Your task to perform on an android device: Go to notification settings Image 0: 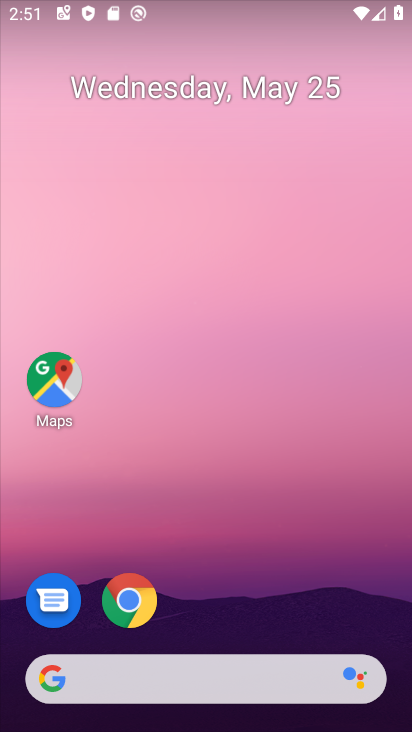
Step 0: drag from (28, 553) to (212, 145)
Your task to perform on an android device: Go to notification settings Image 1: 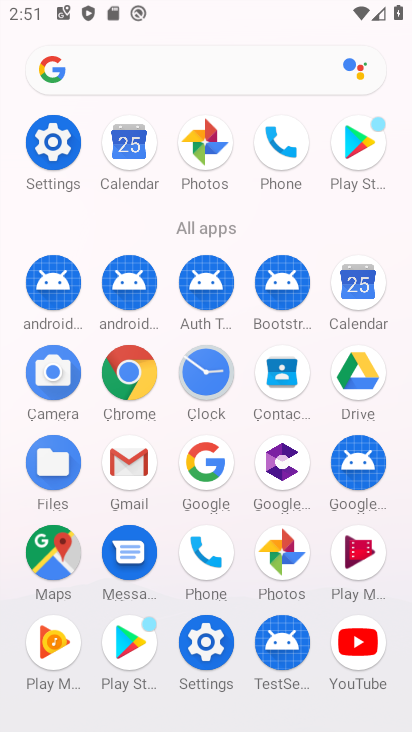
Step 1: click (62, 133)
Your task to perform on an android device: Go to notification settings Image 2: 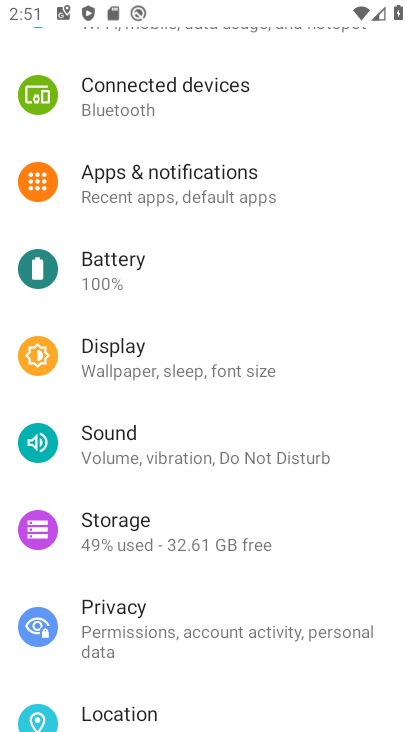
Step 2: click (164, 178)
Your task to perform on an android device: Go to notification settings Image 3: 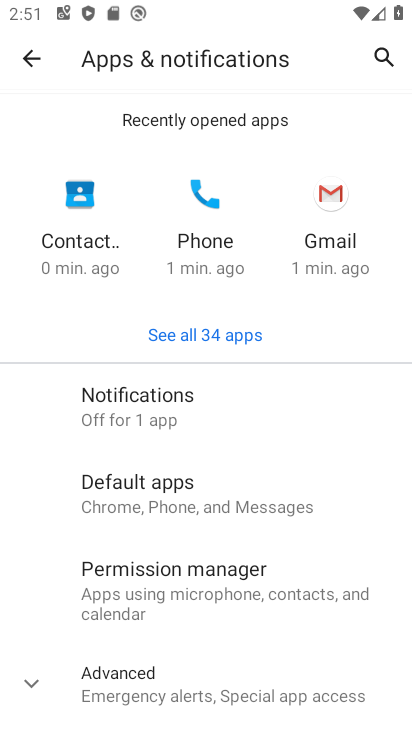
Step 3: click (187, 419)
Your task to perform on an android device: Go to notification settings Image 4: 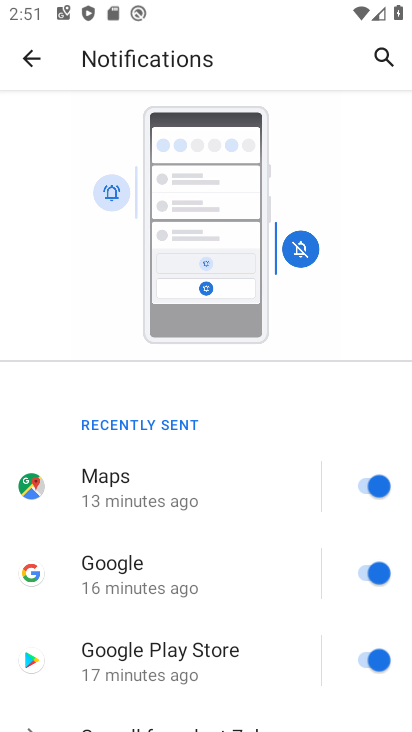
Step 4: task complete